Your task to perform on an android device: allow cookies in the chrome app Image 0: 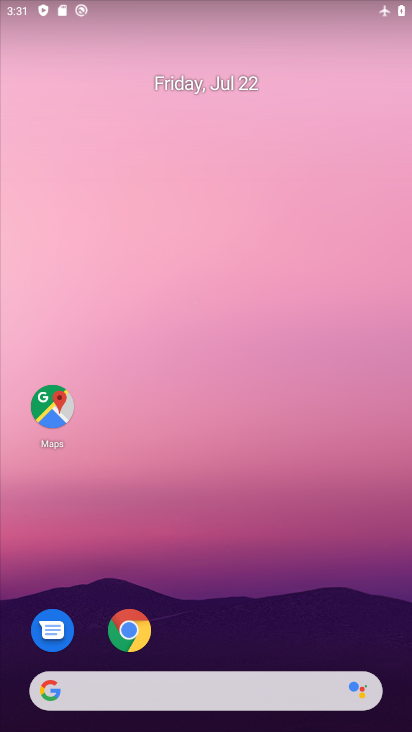
Step 0: click (130, 624)
Your task to perform on an android device: allow cookies in the chrome app Image 1: 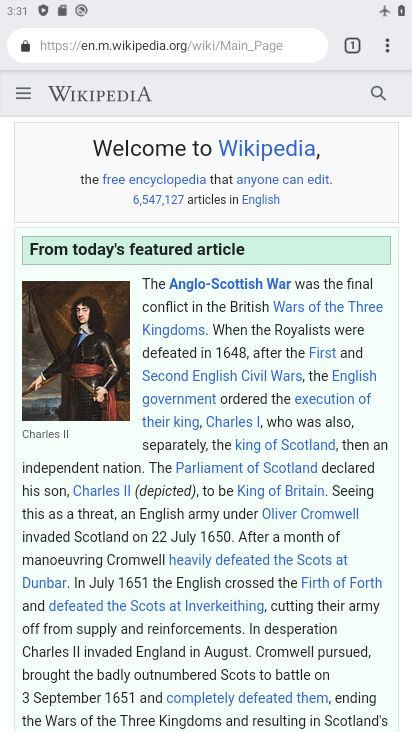
Step 1: click (389, 44)
Your task to perform on an android device: allow cookies in the chrome app Image 2: 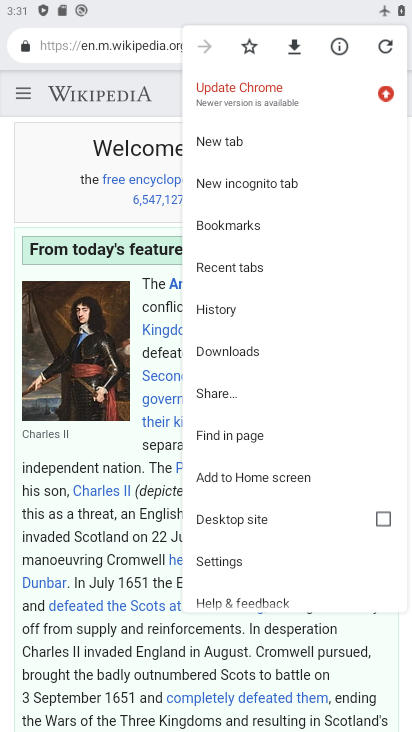
Step 2: click (234, 568)
Your task to perform on an android device: allow cookies in the chrome app Image 3: 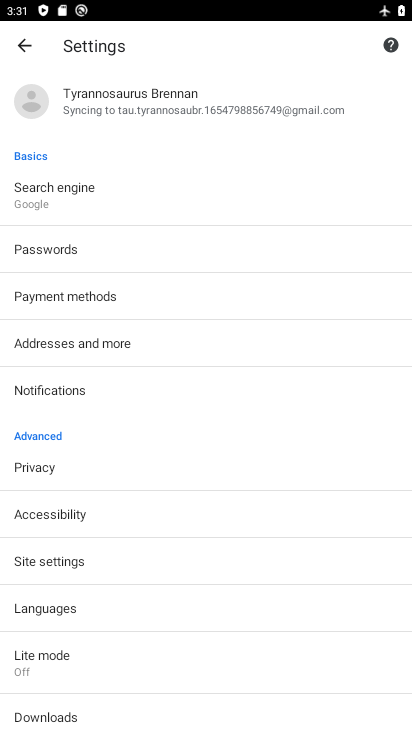
Step 3: click (57, 567)
Your task to perform on an android device: allow cookies in the chrome app Image 4: 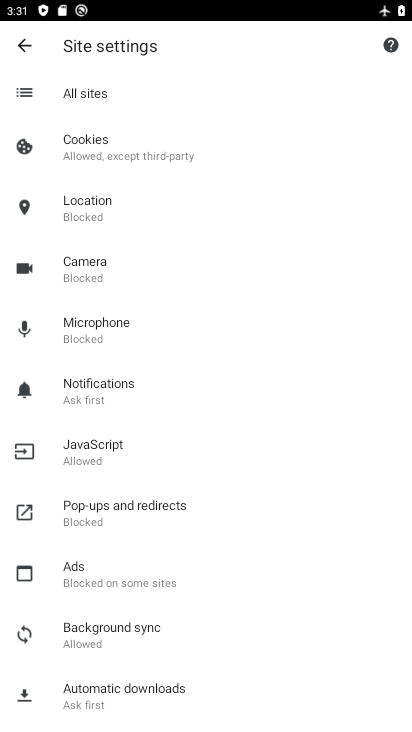
Step 4: click (125, 148)
Your task to perform on an android device: allow cookies in the chrome app Image 5: 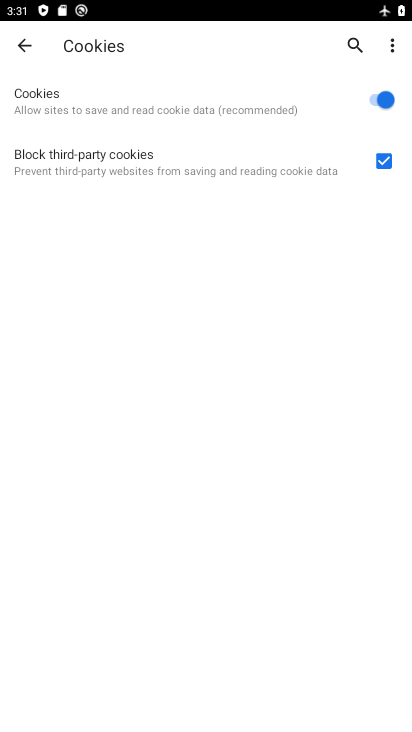
Step 5: task complete